Your task to perform on an android device: add a contact in the contacts app Image 0: 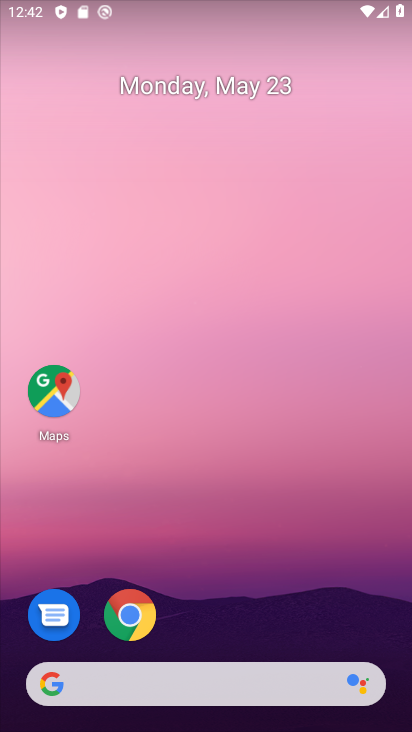
Step 0: drag from (203, 712) to (203, 94)
Your task to perform on an android device: add a contact in the contacts app Image 1: 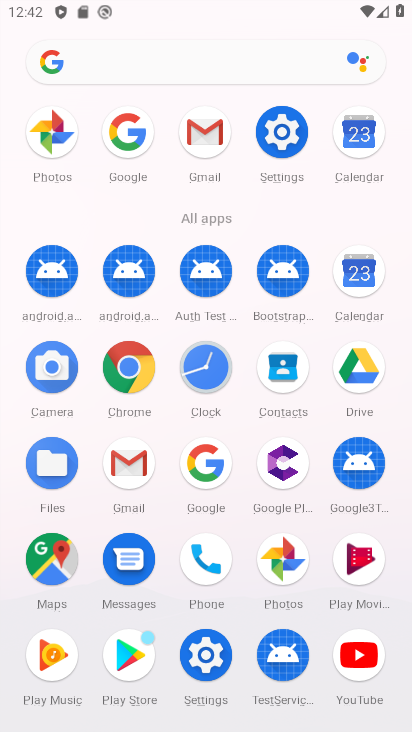
Step 1: click (285, 377)
Your task to perform on an android device: add a contact in the contacts app Image 2: 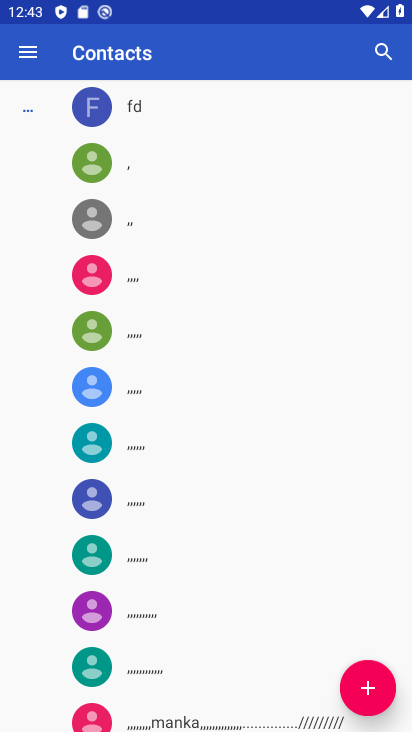
Step 2: click (367, 691)
Your task to perform on an android device: add a contact in the contacts app Image 3: 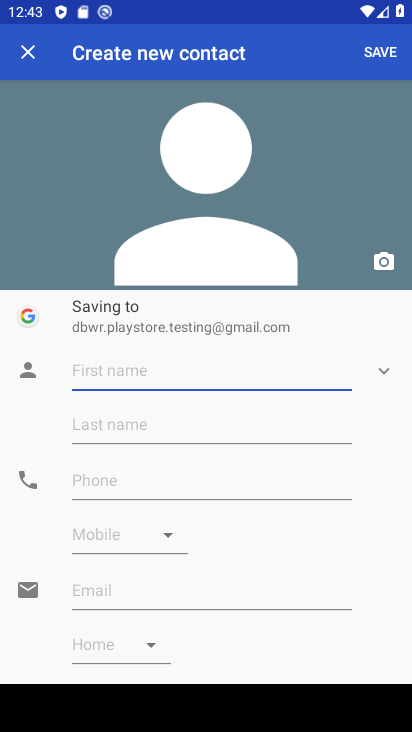
Step 3: type "hittt"
Your task to perform on an android device: add a contact in the contacts app Image 4: 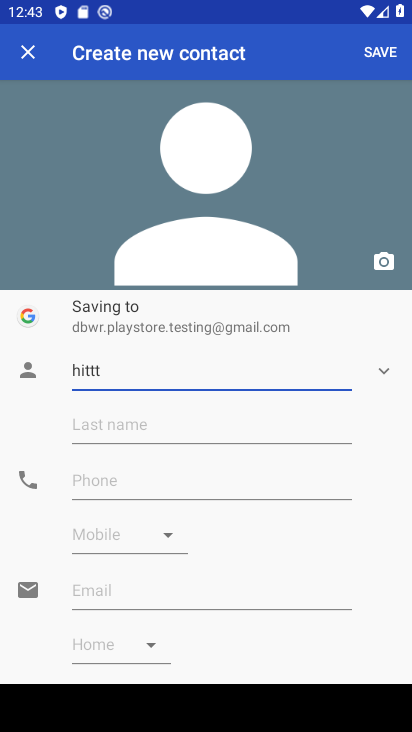
Step 4: click (93, 478)
Your task to perform on an android device: add a contact in the contacts app Image 5: 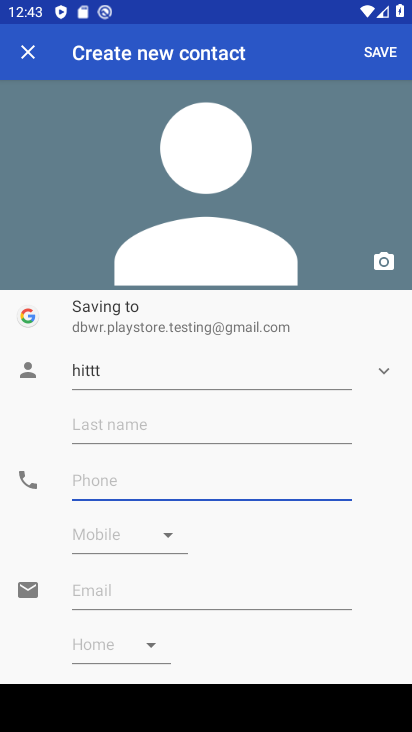
Step 5: type "99999"
Your task to perform on an android device: add a contact in the contacts app Image 6: 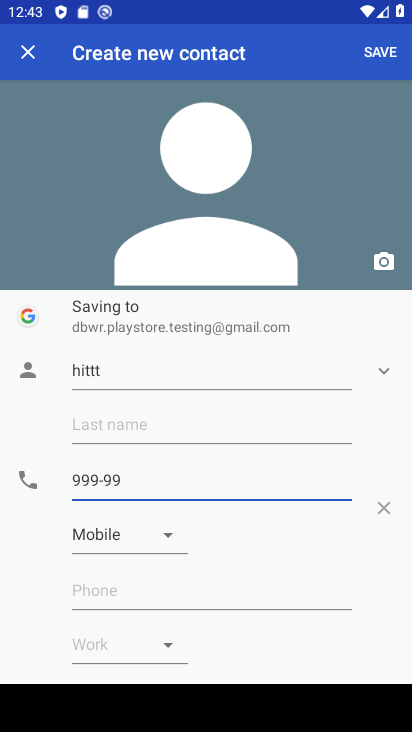
Step 6: click (381, 50)
Your task to perform on an android device: add a contact in the contacts app Image 7: 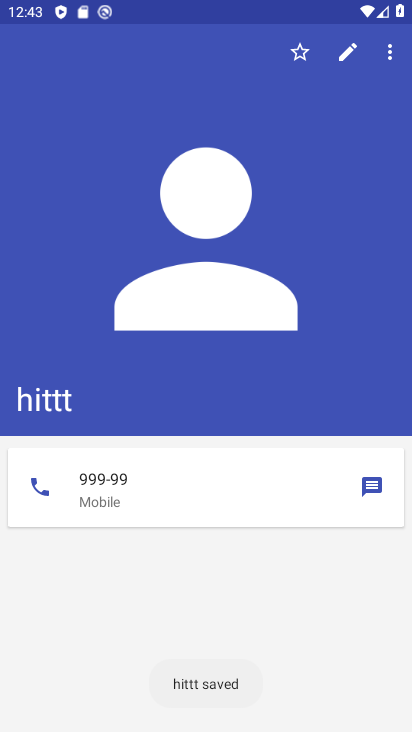
Step 7: task complete